Your task to perform on an android device: read, delete, or share a saved page in the chrome app Image 0: 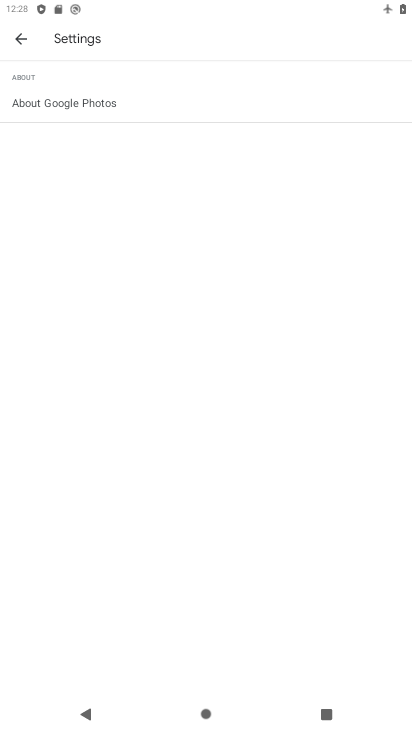
Step 0: press home button
Your task to perform on an android device: read, delete, or share a saved page in the chrome app Image 1: 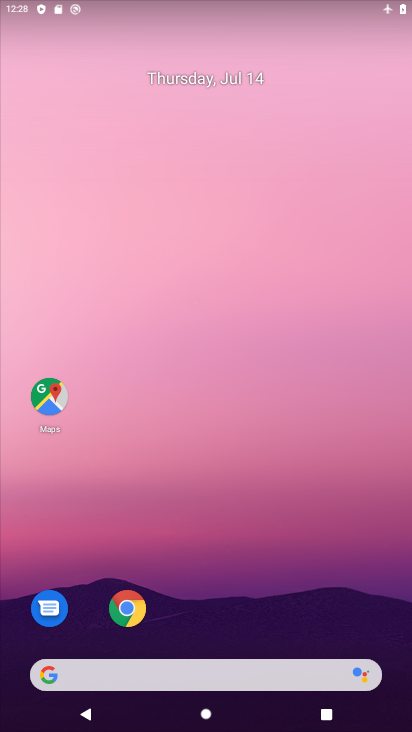
Step 1: drag from (351, 616) to (382, 198)
Your task to perform on an android device: read, delete, or share a saved page in the chrome app Image 2: 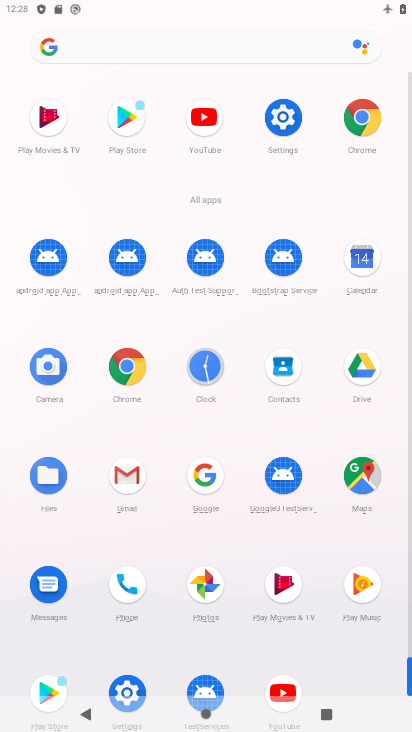
Step 2: click (120, 366)
Your task to perform on an android device: read, delete, or share a saved page in the chrome app Image 3: 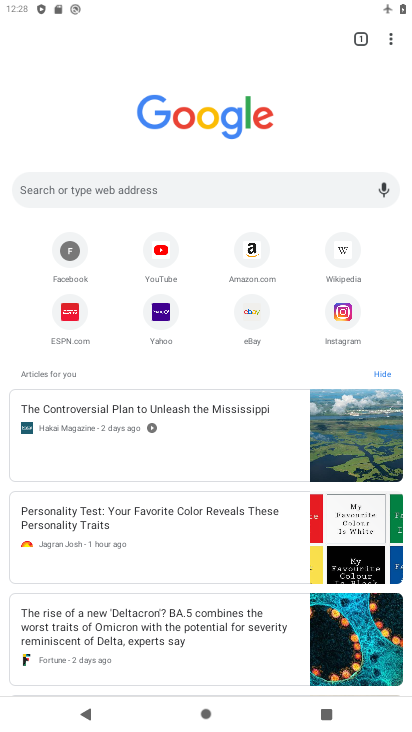
Step 3: click (389, 40)
Your task to perform on an android device: read, delete, or share a saved page in the chrome app Image 4: 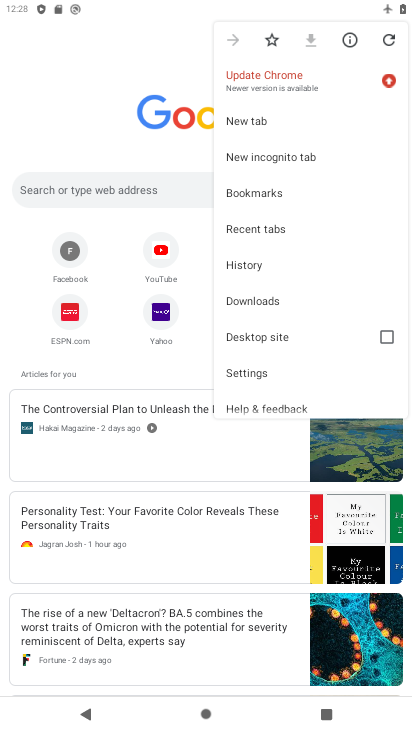
Step 4: drag from (315, 341) to (327, 227)
Your task to perform on an android device: read, delete, or share a saved page in the chrome app Image 5: 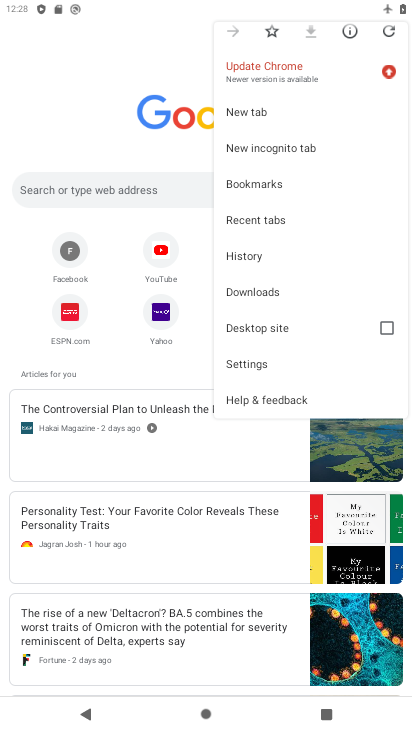
Step 5: click (285, 293)
Your task to perform on an android device: read, delete, or share a saved page in the chrome app Image 6: 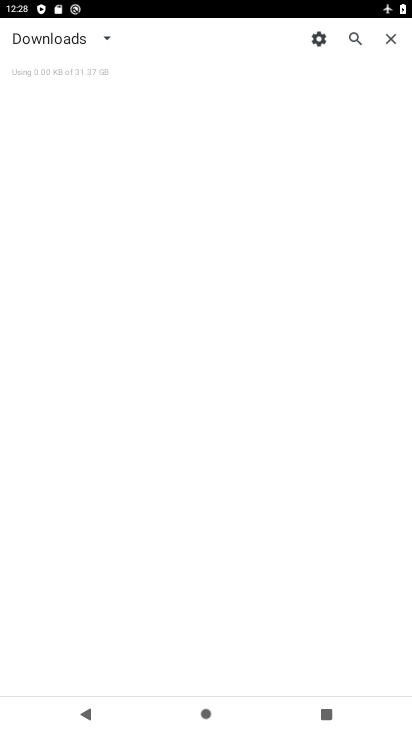
Step 6: click (108, 43)
Your task to perform on an android device: read, delete, or share a saved page in the chrome app Image 7: 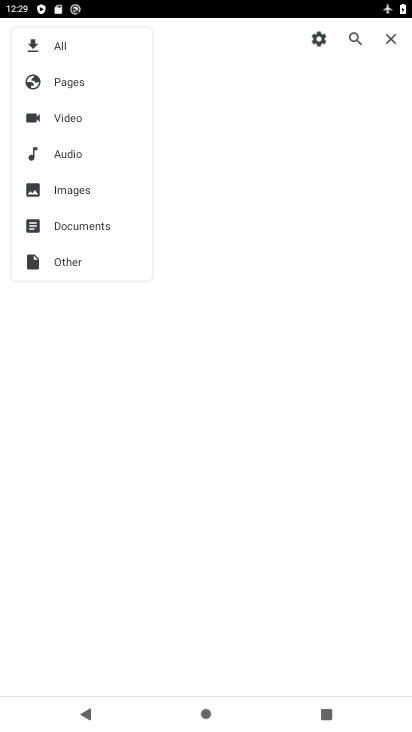
Step 7: click (80, 80)
Your task to perform on an android device: read, delete, or share a saved page in the chrome app Image 8: 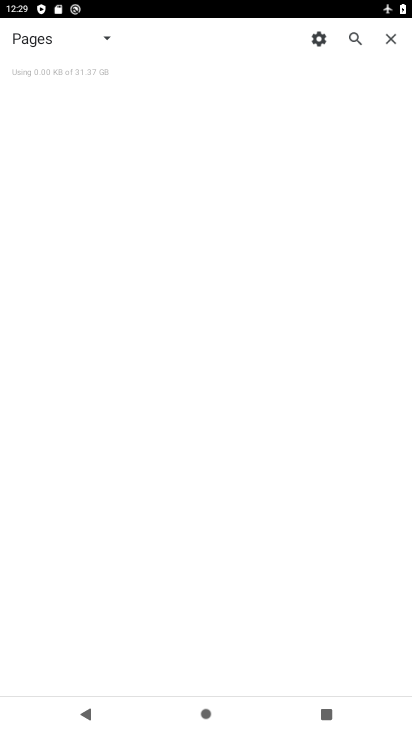
Step 8: task complete